Your task to perform on an android device: Show me recent news Image 0: 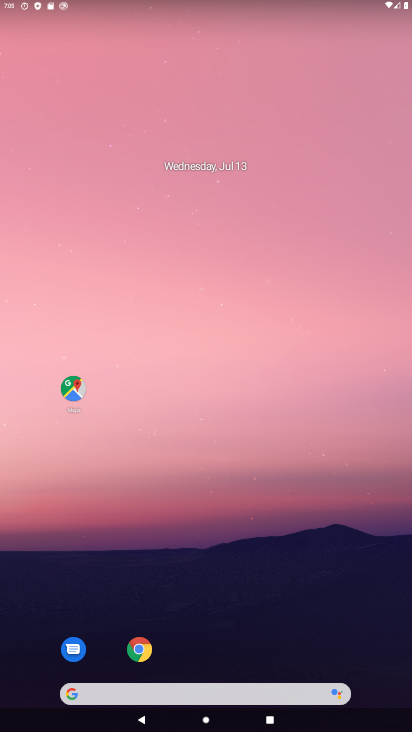
Step 0: drag from (209, 689) to (262, 154)
Your task to perform on an android device: Show me recent news Image 1: 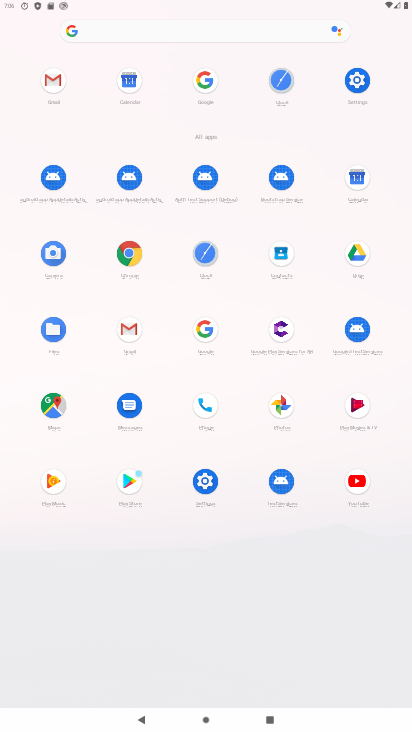
Step 1: click (203, 81)
Your task to perform on an android device: Show me recent news Image 2: 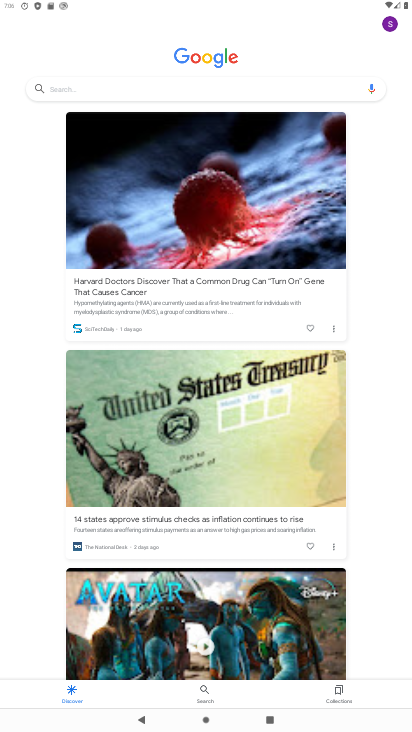
Step 2: click (209, 88)
Your task to perform on an android device: Show me recent news Image 3: 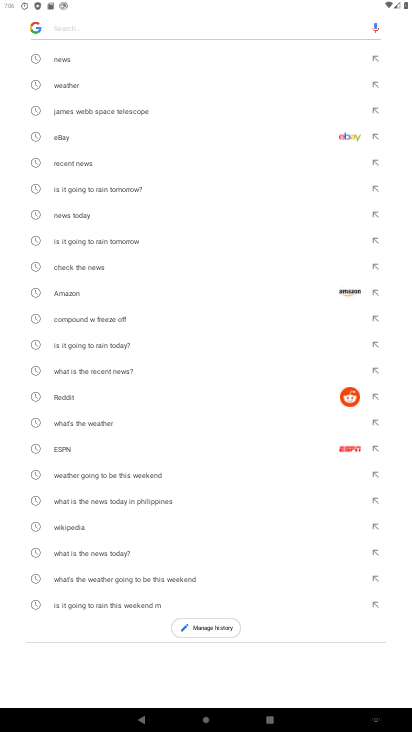
Step 3: type "recent news"
Your task to perform on an android device: Show me recent news Image 4: 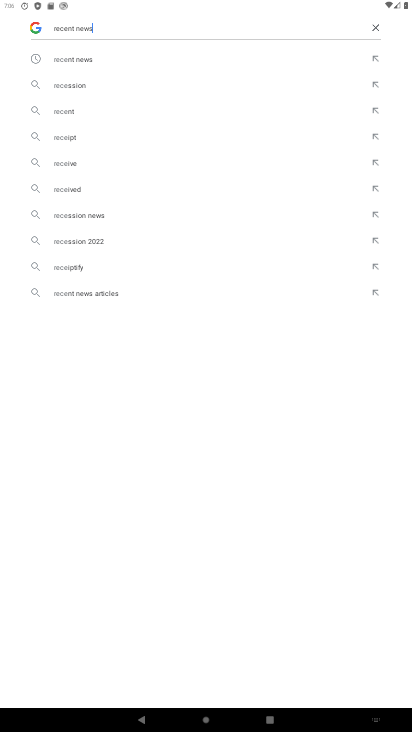
Step 4: type ""
Your task to perform on an android device: Show me recent news Image 5: 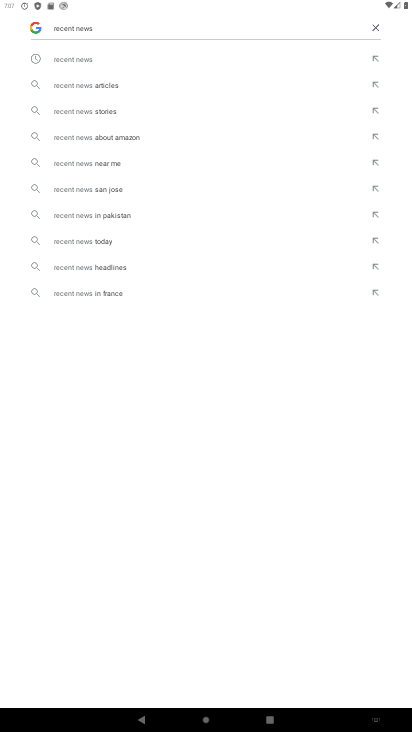
Step 5: click (84, 64)
Your task to perform on an android device: Show me recent news Image 6: 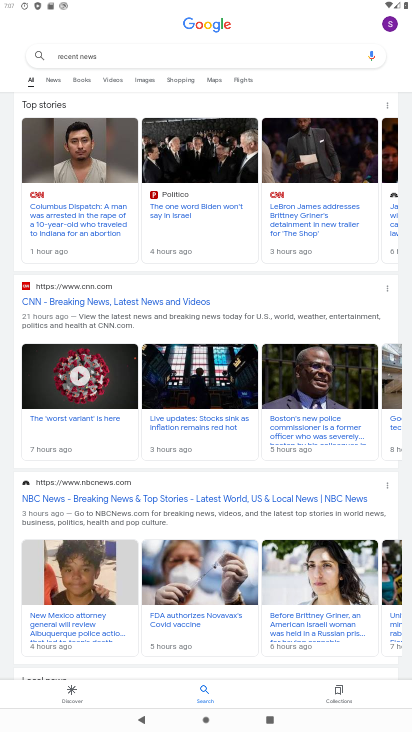
Step 6: click (94, 233)
Your task to perform on an android device: Show me recent news Image 7: 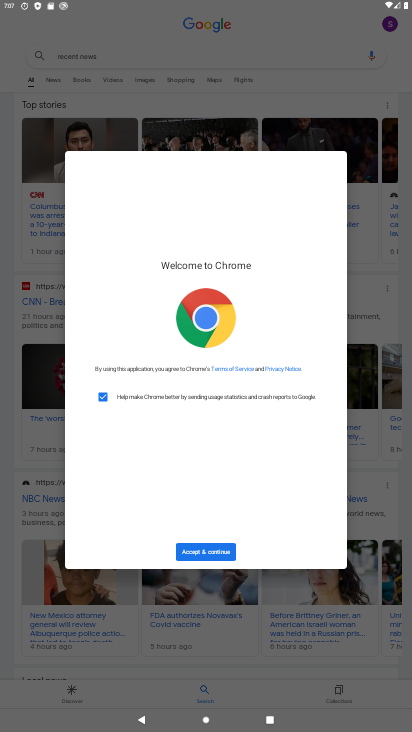
Step 7: click (221, 548)
Your task to perform on an android device: Show me recent news Image 8: 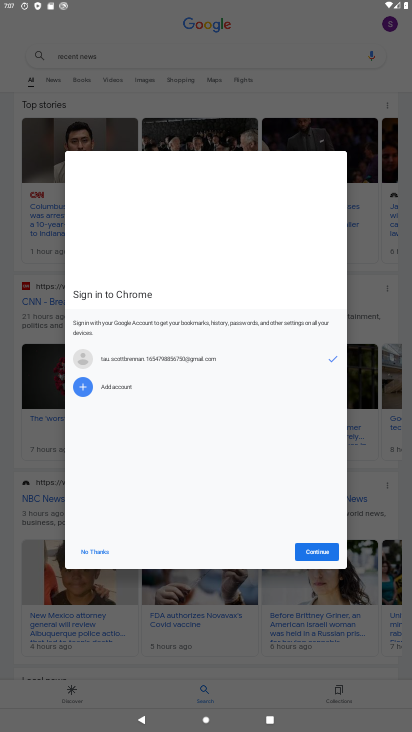
Step 8: click (312, 556)
Your task to perform on an android device: Show me recent news Image 9: 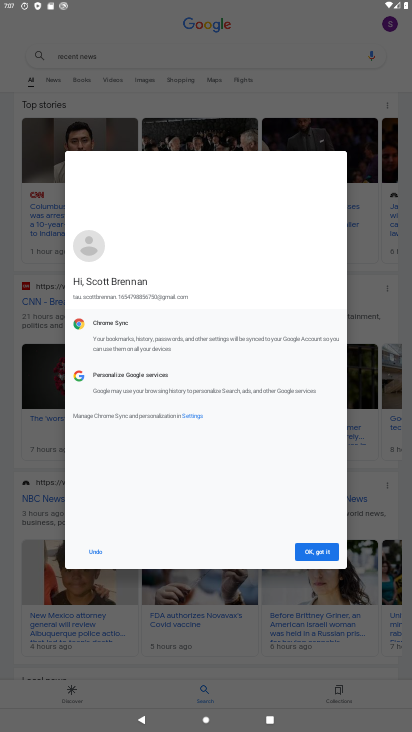
Step 9: click (311, 556)
Your task to perform on an android device: Show me recent news Image 10: 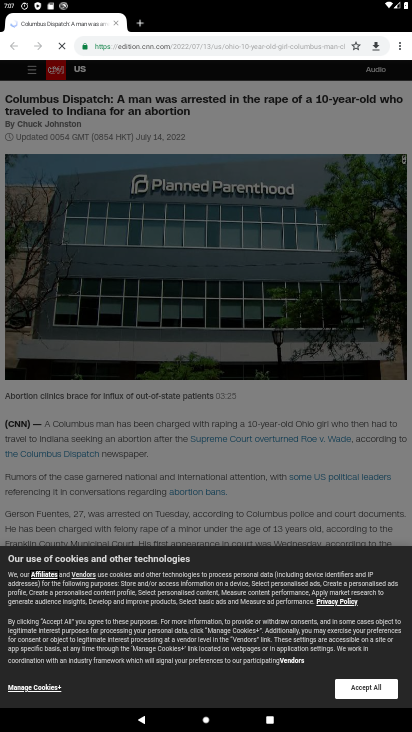
Step 10: task complete